Your task to perform on an android device: add a contact Image 0: 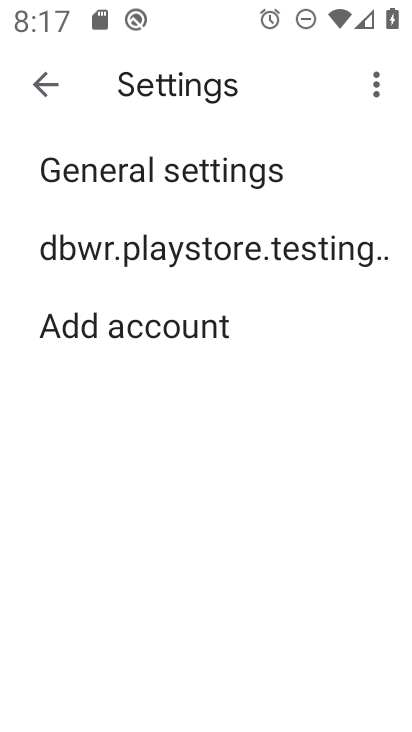
Step 0: press home button
Your task to perform on an android device: add a contact Image 1: 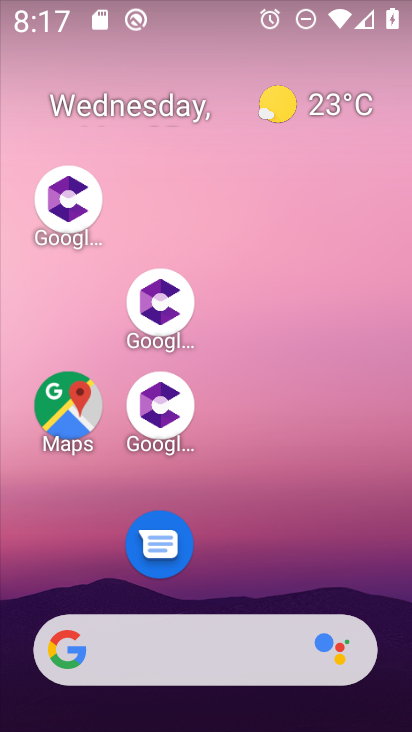
Step 1: drag from (270, 533) to (206, 131)
Your task to perform on an android device: add a contact Image 2: 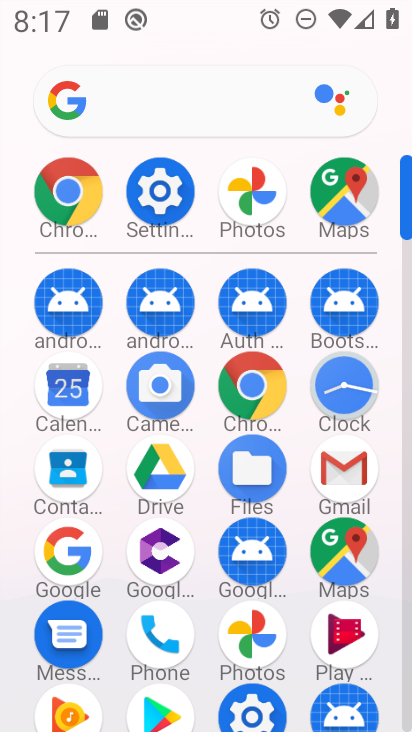
Step 2: click (77, 469)
Your task to perform on an android device: add a contact Image 3: 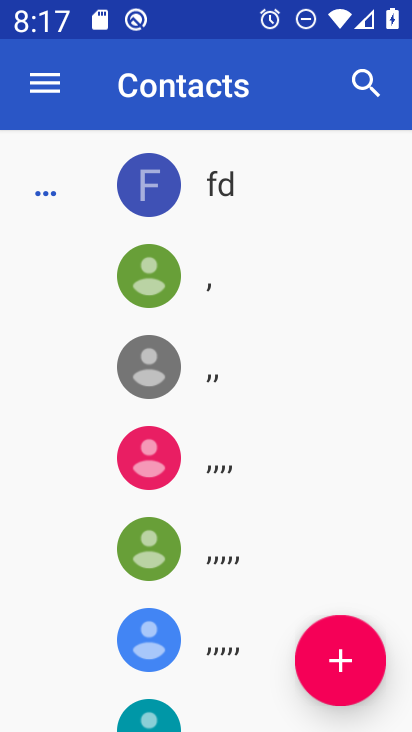
Step 3: click (344, 669)
Your task to perform on an android device: add a contact Image 4: 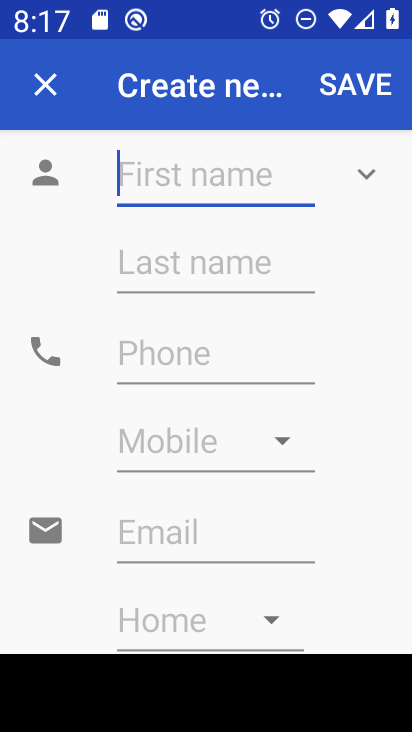
Step 4: type "zqqqqqqew"
Your task to perform on an android device: add a contact Image 5: 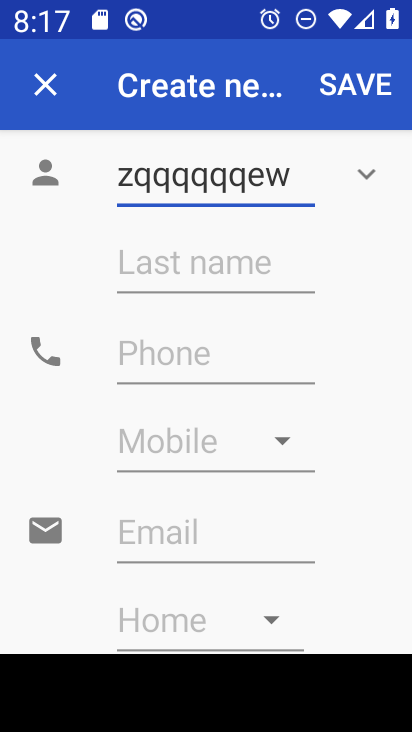
Step 5: click (175, 346)
Your task to perform on an android device: add a contact Image 6: 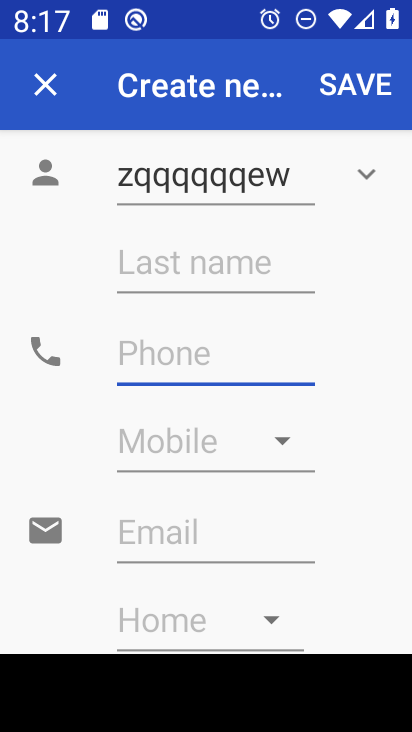
Step 6: type "09876545678"
Your task to perform on an android device: add a contact Image 7: 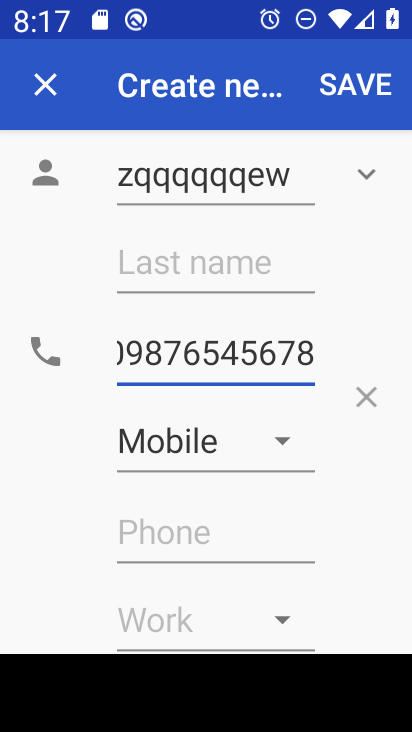
Step 7: click (366, 82)
Your task to perform on an android device: add a contact Image 8: 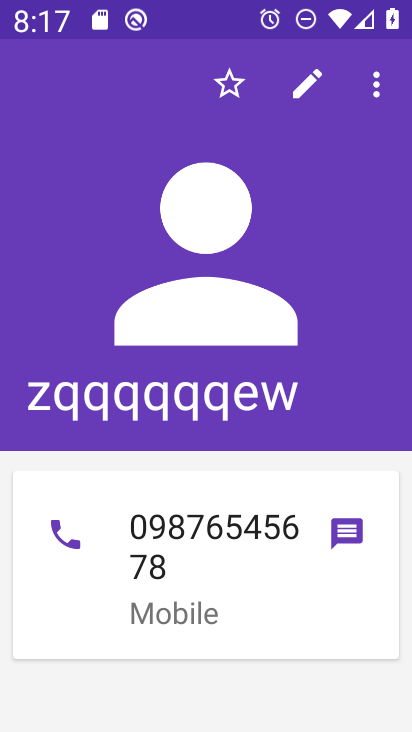
Step 8: task complete